Your task to perform on an android device: Open Amazon Image 0: 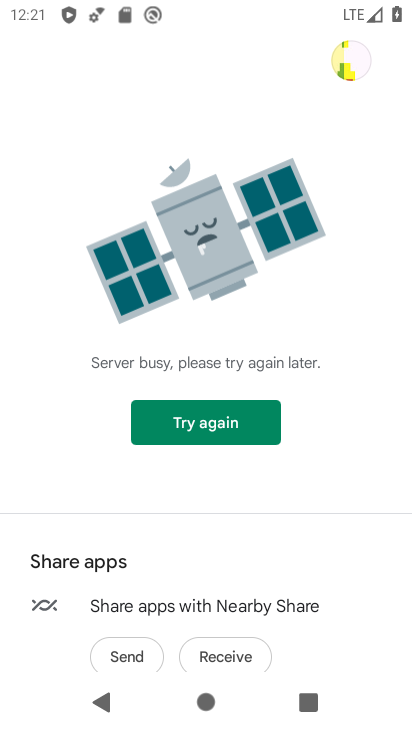
Step 0: press home button
Your task to perform on an android device: Open Amazon Image 1: 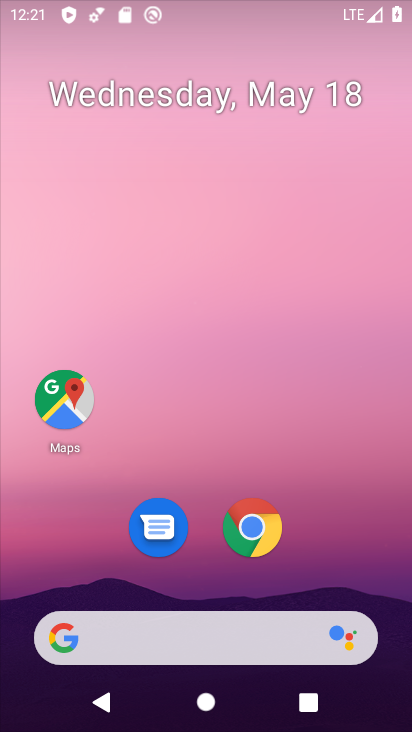
Step 1: click (250, 530)
Your task to perform on an android device: Open Amazon Image 2: 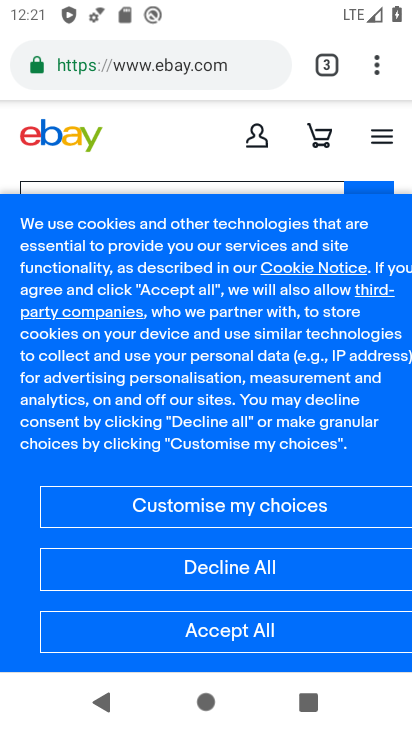
Step 2: click (328, 66)
Your task to perform on an android device: Open Amazon Image 3: 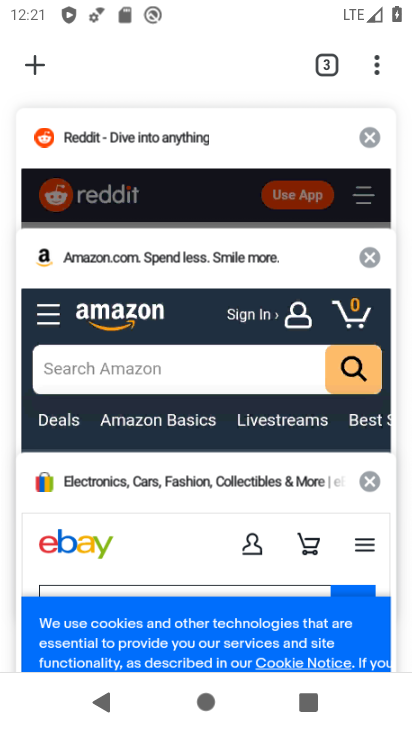
Step 3: click (203, 298)
Your task to perform on an android device: Open Amazon Image 4: 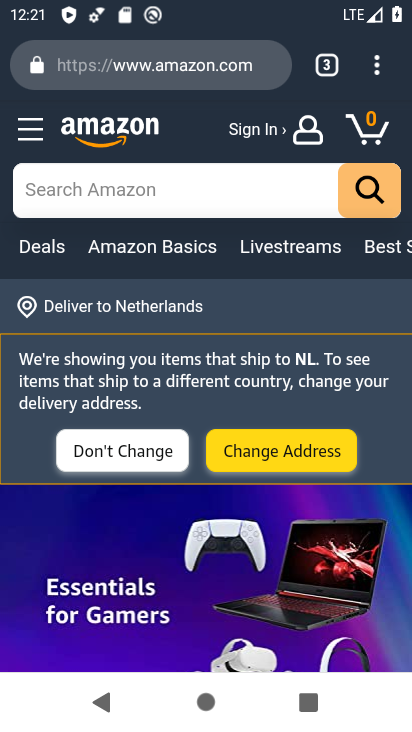
Step 4: task complete